Your task to perform on an android device: Open Google Image 0: 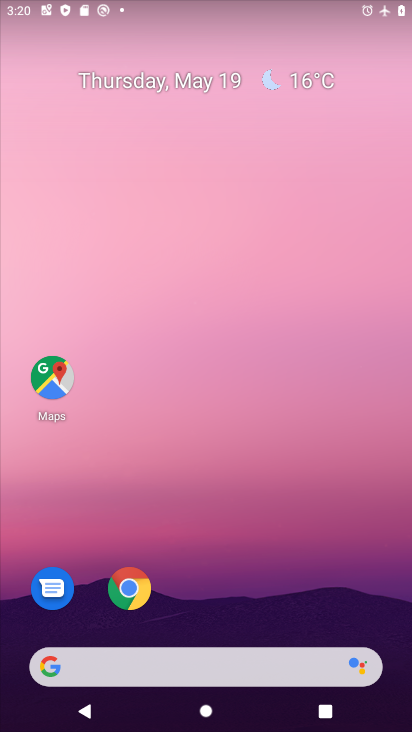
Step 0: drag from (216, 531) to (241, 124)
Your task to perform on an android device: Open Google Image 1: 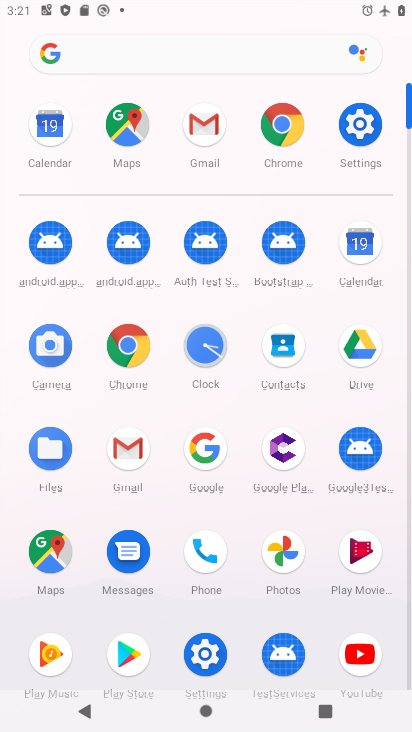
Step 1: click (215, 444)
Your task to perform on an android device: Open Google Image 2: 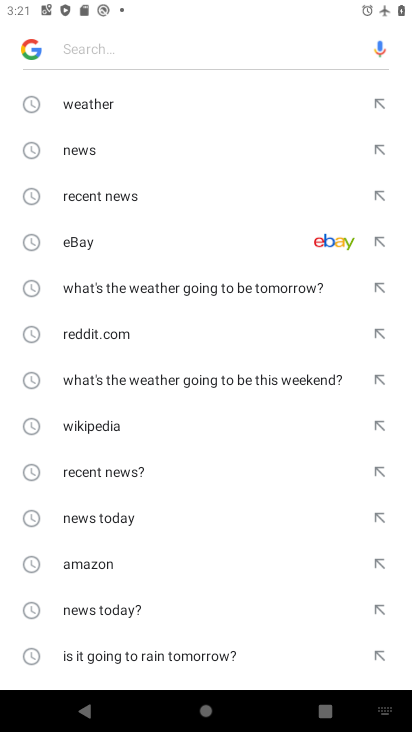
Step 2: task complete